Your task to perform on an android device: Open Amazon Image 0: 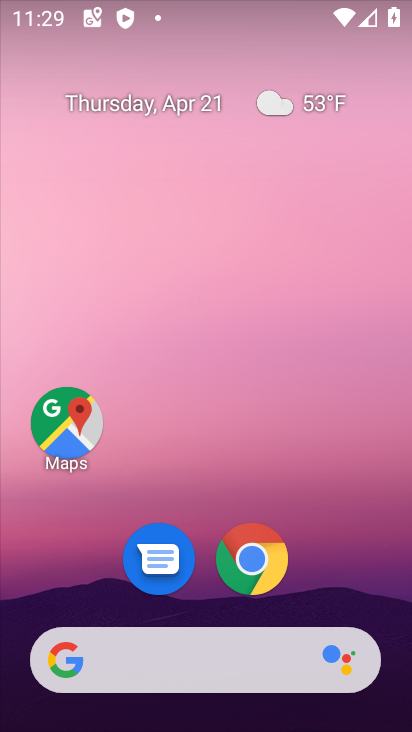
Step 0: click (254, 559)
Your task to perform on an android device: Open Amazon Image 1: 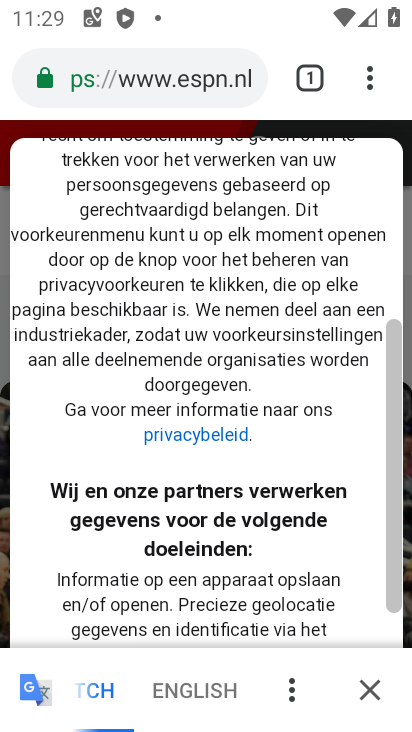
Step 1: click (206, 87)
Your task to perform on an android device: Open Amazon Image 2: 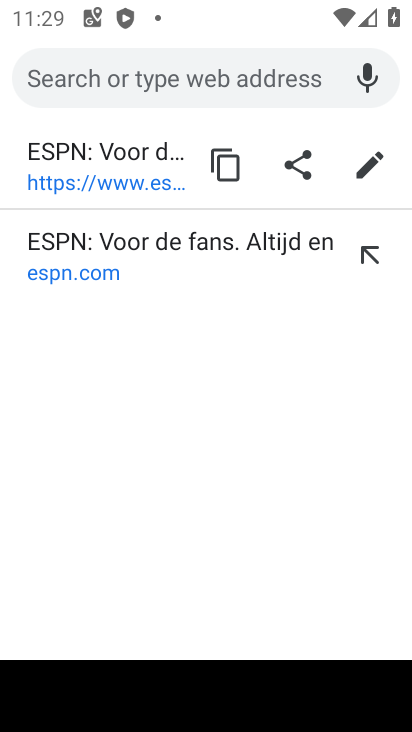
Step 2: type "amazon"
Your task to perform on an android device: Open Amazon Image 3: 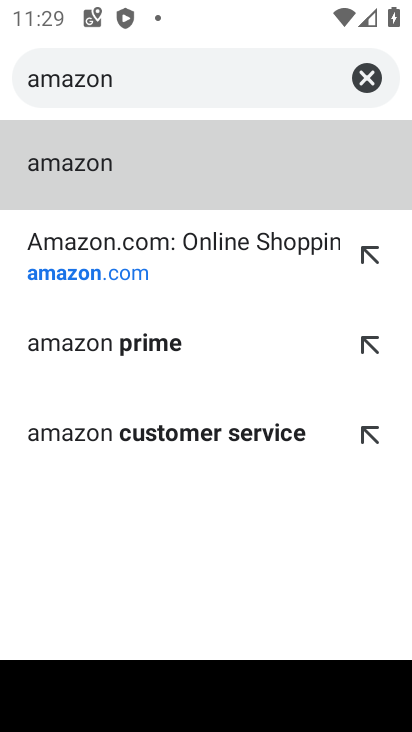
Step 3: click (84, 256)
Your task to perform on an android device: Open Amazon Image 4: 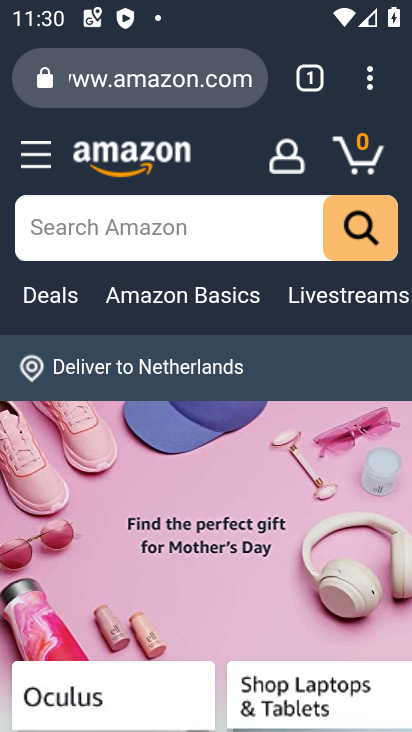
Step 4: task complete